Your task to perform on an android device: open a bookmark in the chrome app Image 0: 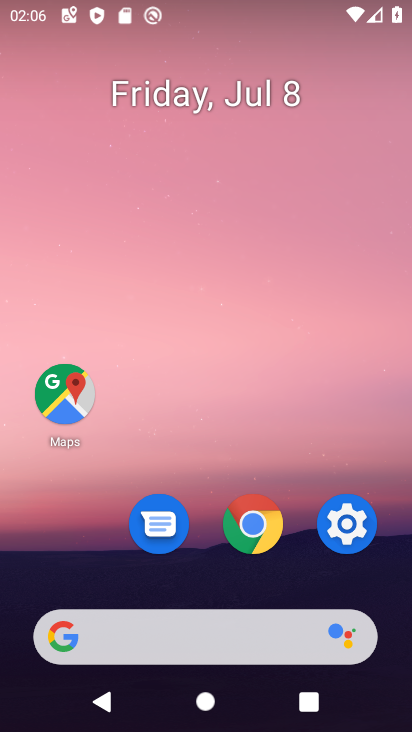
Step 0: click (254, 521)
Your task to perform on an android device: open a bookmark in the chrome app Image 1: 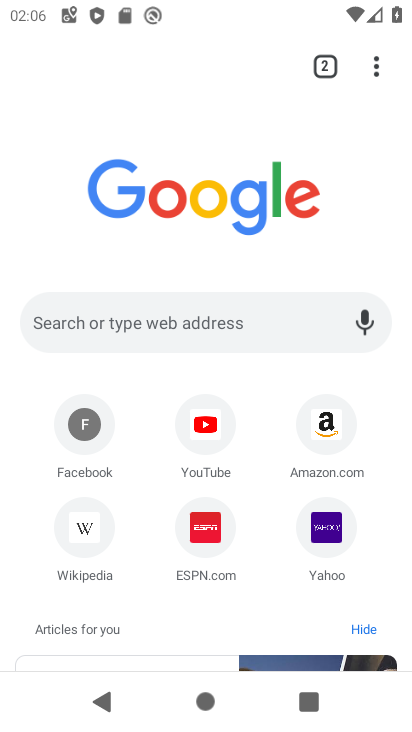
Step 1: click (375, 67)
Your task to perform on an android device: open a bookmark in the chrome app Image 2: 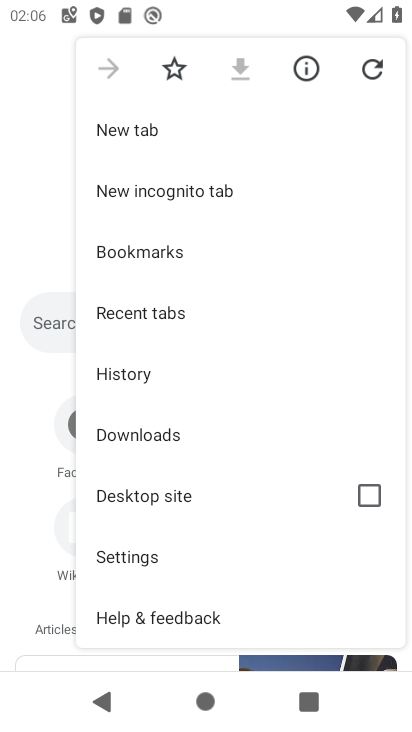
Step 2: click (186, 251)
Your task to perform on an android device: open a bookmark in the chrome app Image 3: 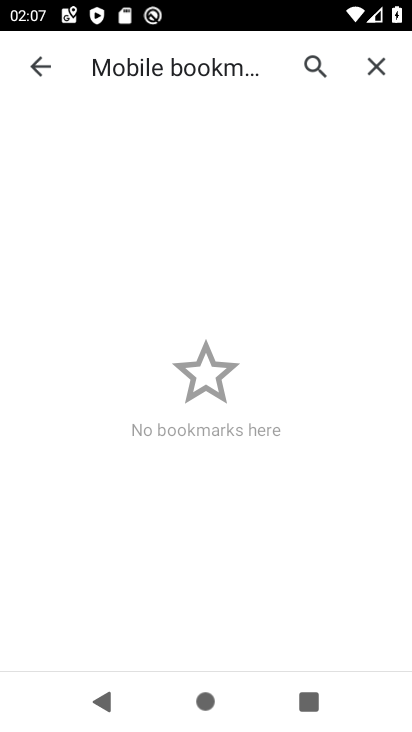
Step 3: task complete